Your task to perform on an android device: search for starred emails in the gmail app Image 0: 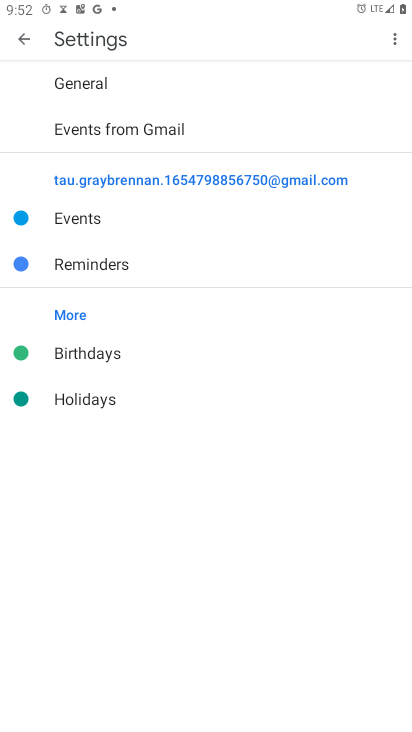
Step 0: click (28, 49)
Your task to perform on an android device: search for starred emails in the gmail app Image 1: 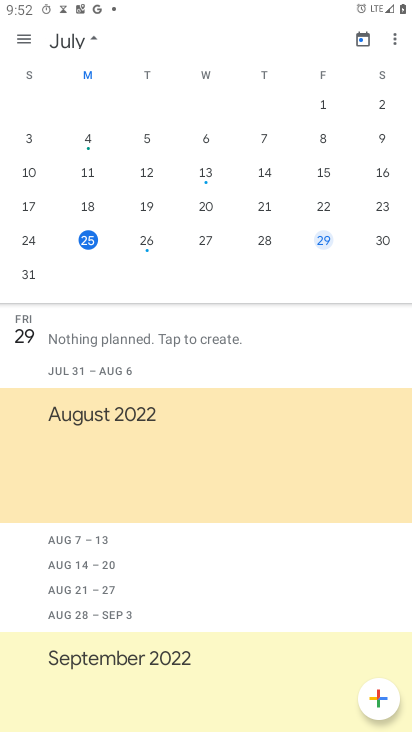
Step 1: press back button
Your task to perform on an android device: search for starred emails in the gmail app Image 2: 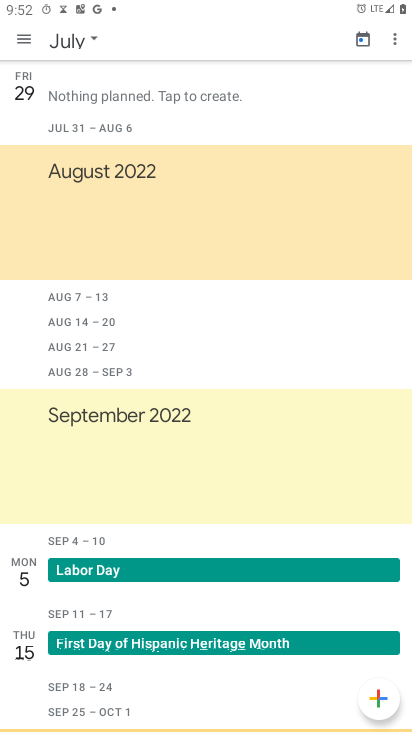
Step 2: press home button
Your task to perform on an android device: search for starred emails in the gmail app Image 3: 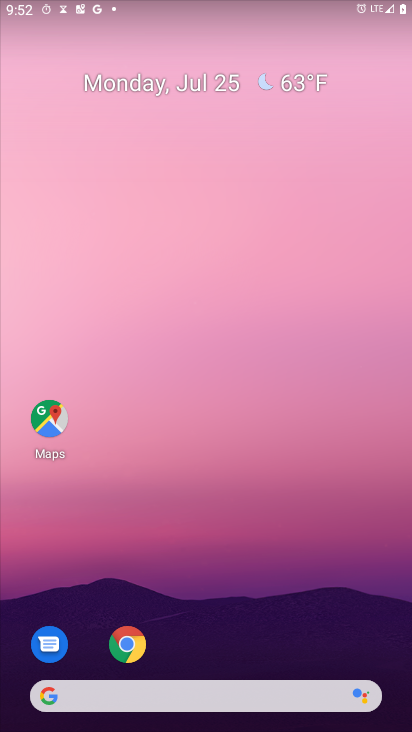
Step 3: drag from (236, 557) to (226, 229)
Your task to perform on an android device: search for starred emails in the gmail app Image 4: 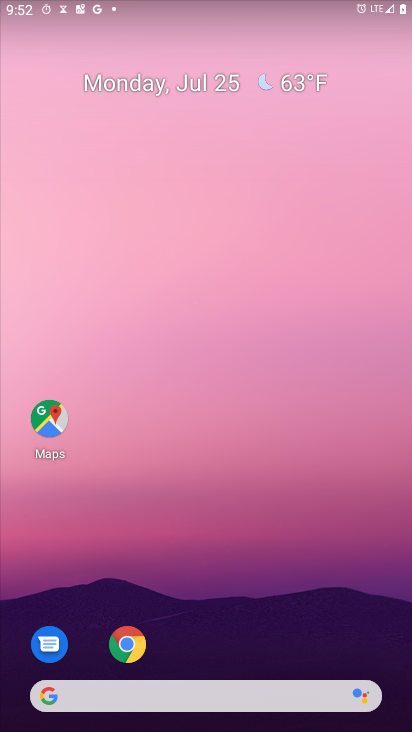
Step 4: drag from (245, 669) to (274, 324)
Your task to perform on an android device: search for starred emails in the gmail app Image 5: 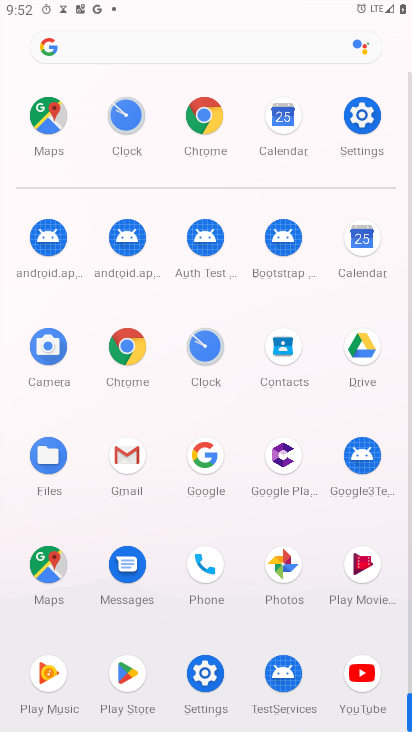
Step 5: click (118, 463)
Your task to perform on an android device: search for starred emails in the gmail app Image 6: 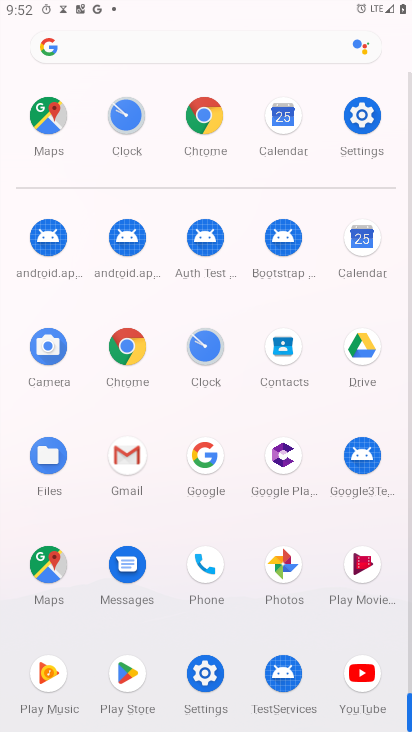
Step 6: click (131, 455)
Your task to perform on an android device: search for starred emails in the gmail app Image 7: 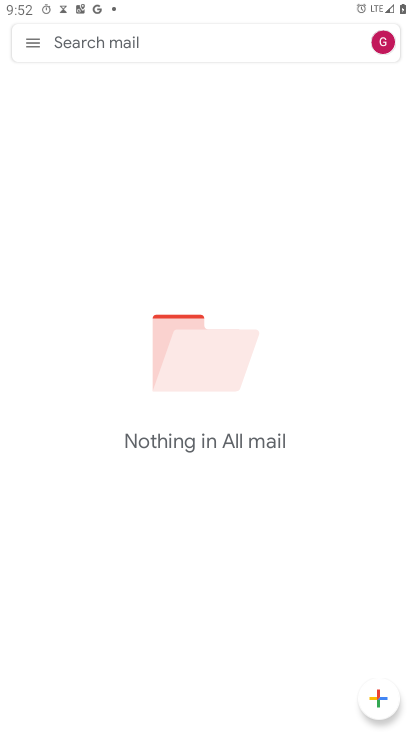
Step 7: click (29, 41)
Your task to perform on an android device: search for starred emails in the gmail app Image 8: 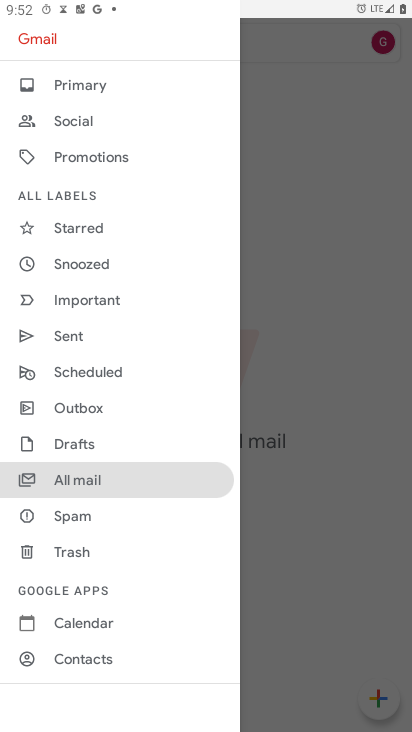
Step 8: click (95, 230)
Your task to perform on an android device: search for starred emails in the gmail app Image 9: 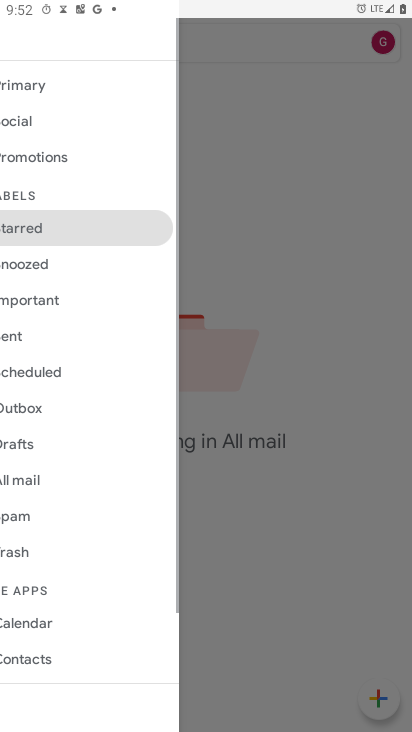
Step 9: click (94, 232)
Your task to perform on an android device: search for starred emails in the gmail app Image 10: 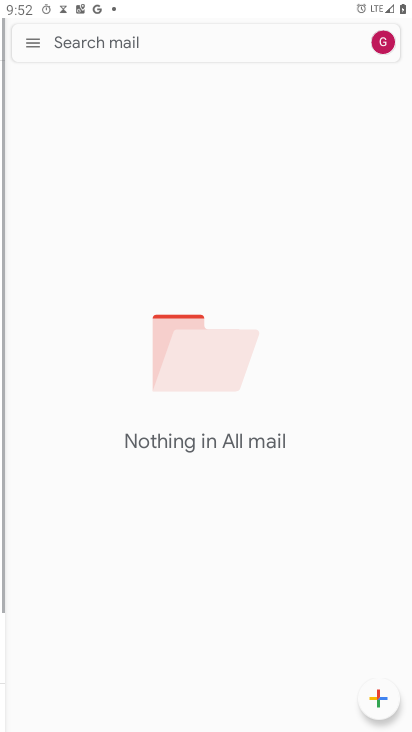
Step 10: click (93, 233)
Your task to perform on an android device: search for starred emails in the gmail app Image 11: 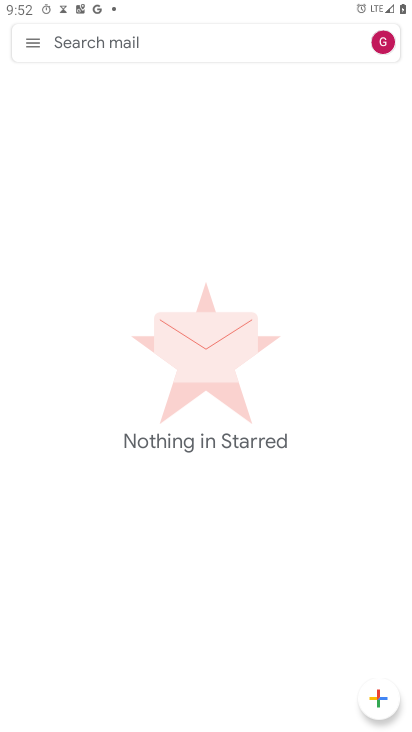
Step 11: task complete